Your task to perform on an android device: add a label to a message in the gmail app Image 0: 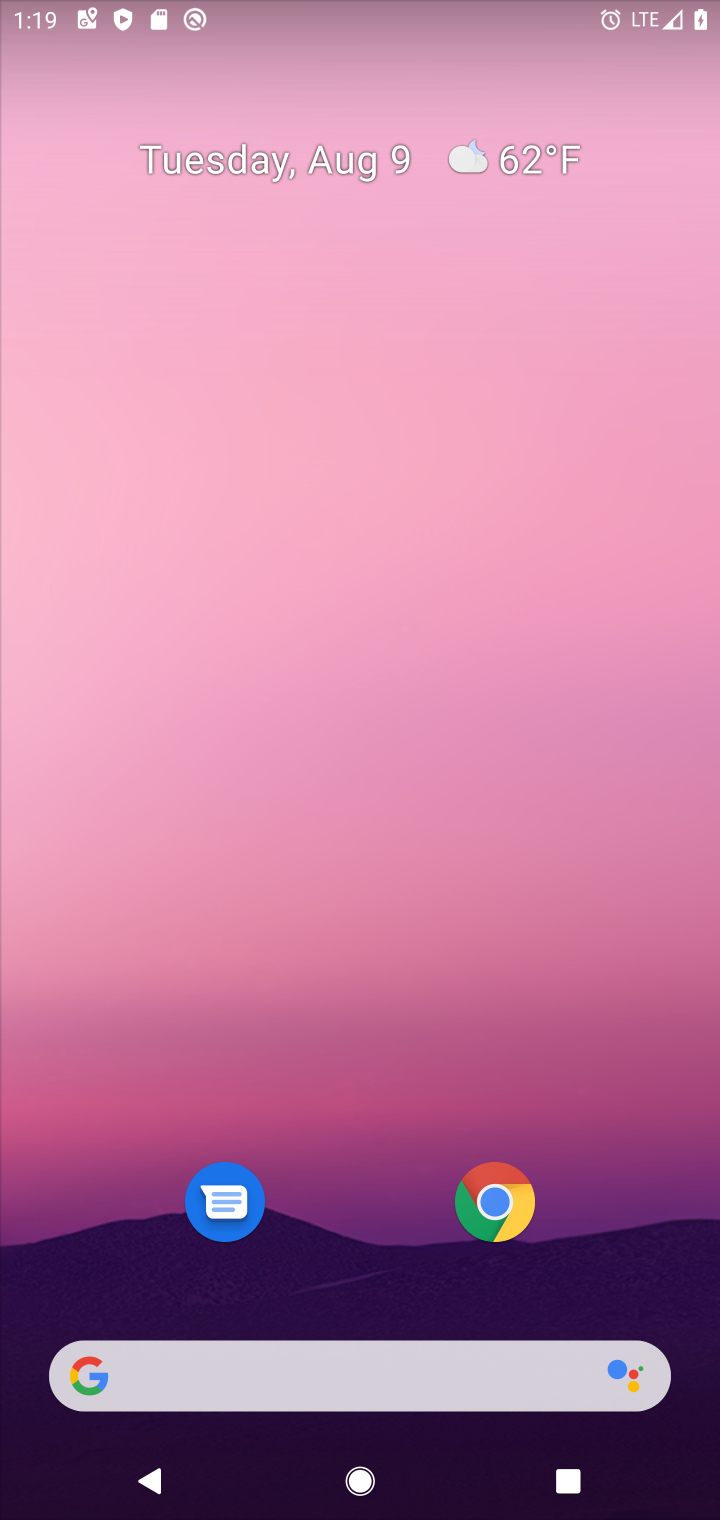
Step 0: drag from (364, 1078) to (308, 139)
Your task to perform on an android device: add a label to a message in the gmail app Image 1: 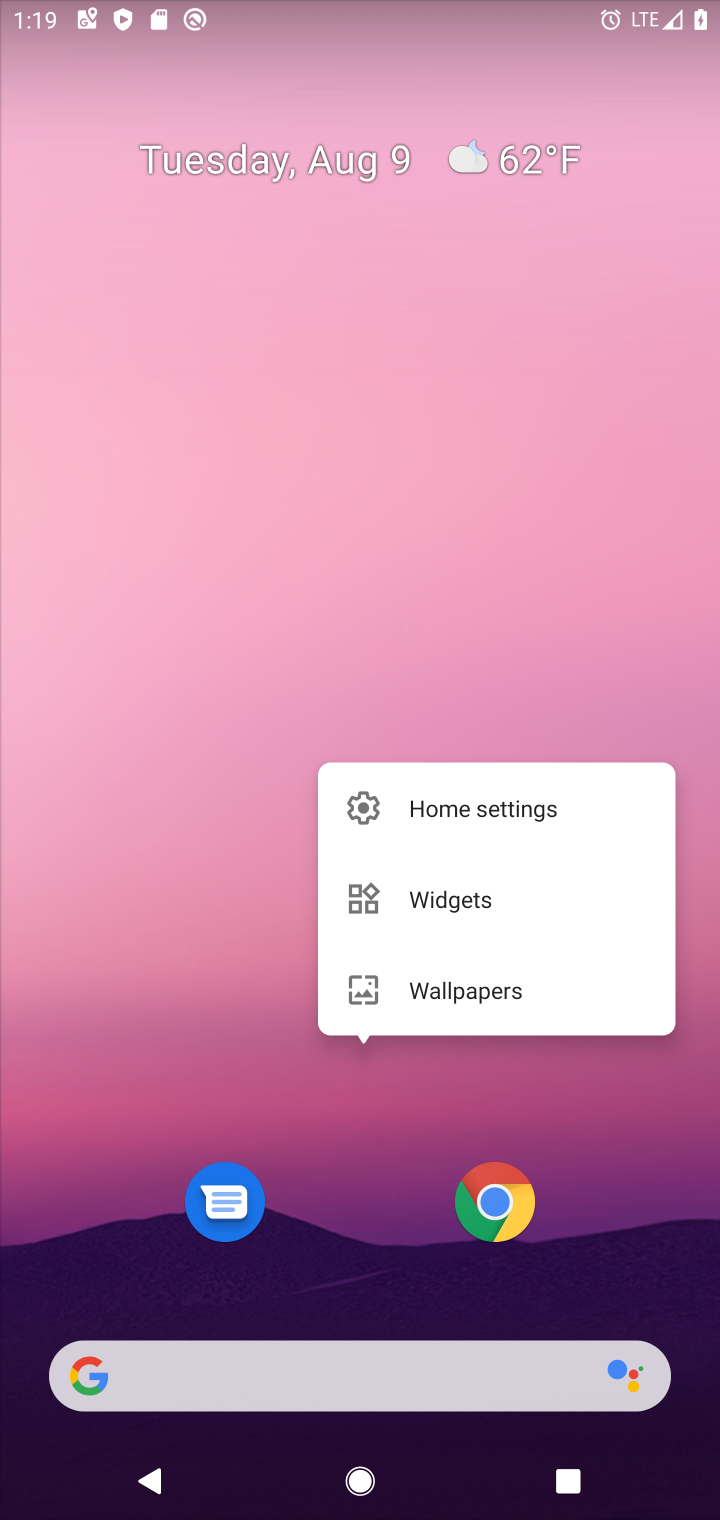
Step 1: click (394, 1267)
Your task to perform on an android device: add a label to a message in the gmail app Image 2: 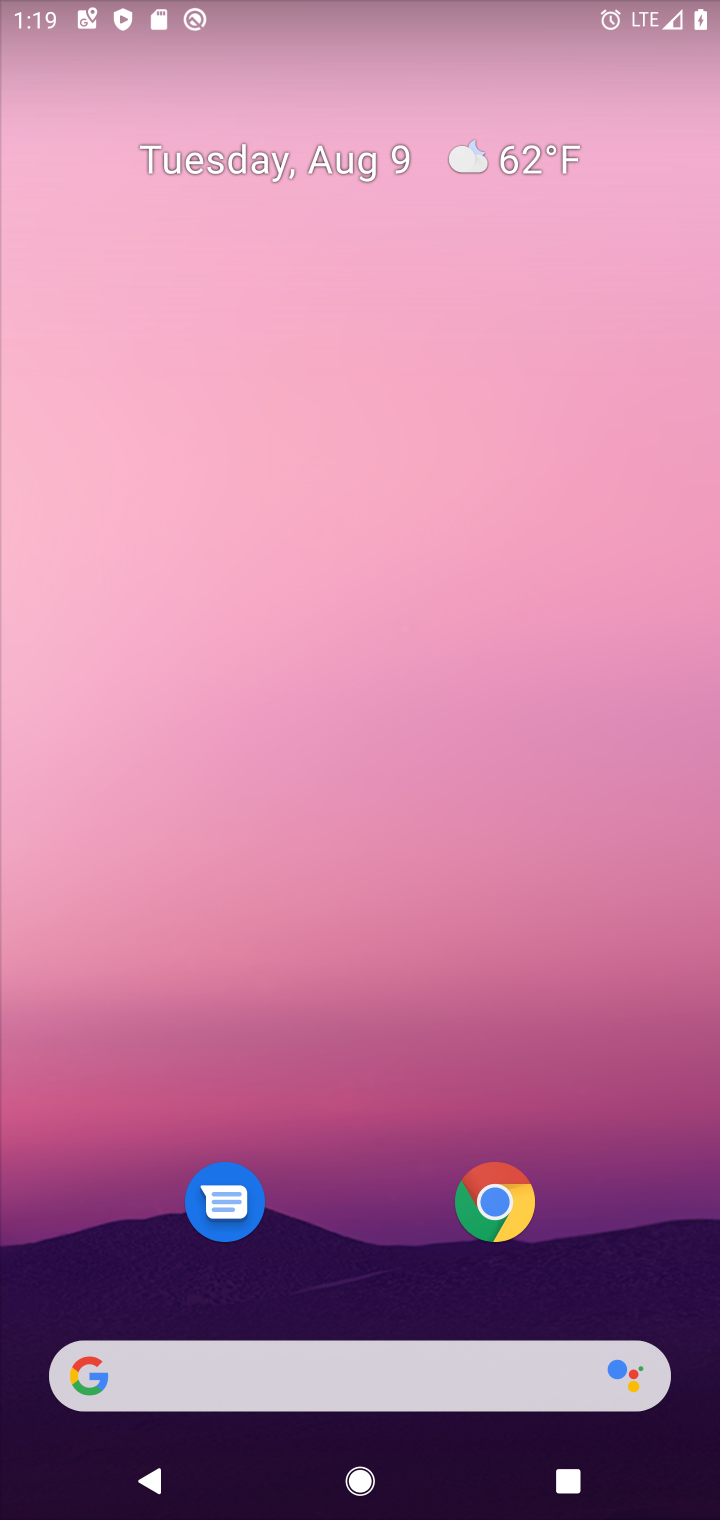
Step 2: drag from (394, 1118) to (352, 275)
Your task to perform on an android device: add a label to a message in the gmail app Image 3: 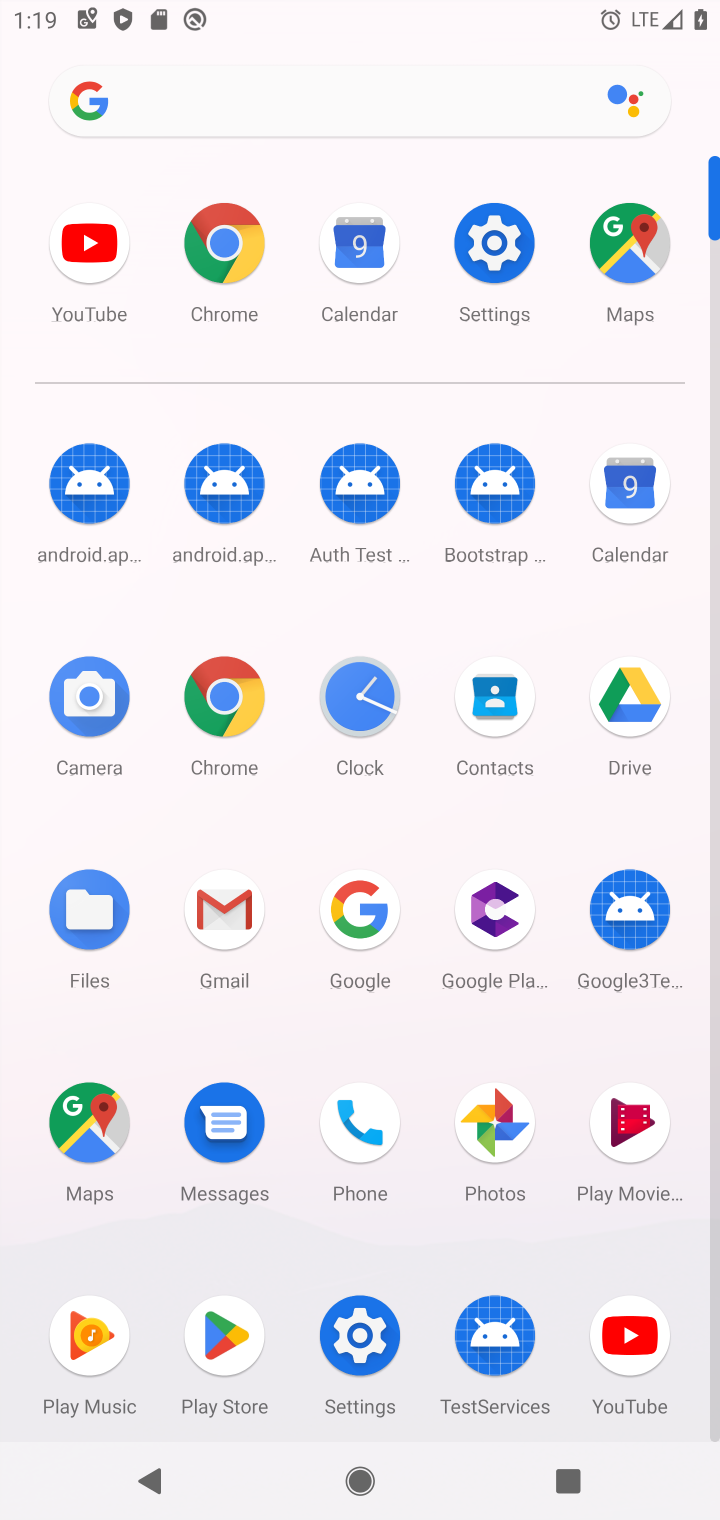
Step 3: click (224, 907)
Your task to perform on an android device: add a label to a message in the gmail app Image 4: 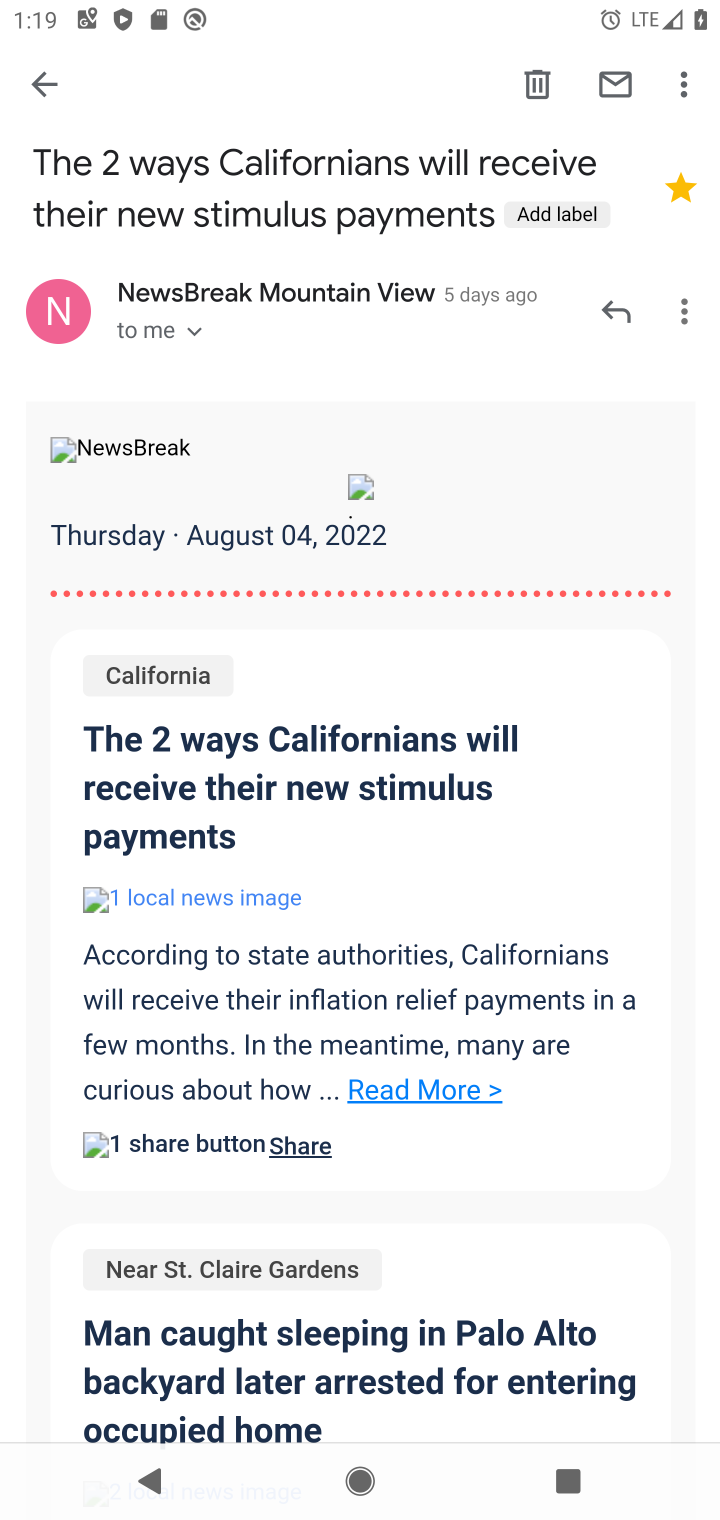
Step 4: click (47, 86)
Your task to perform on an android device: add a label to a message in the gmail app Image 5: 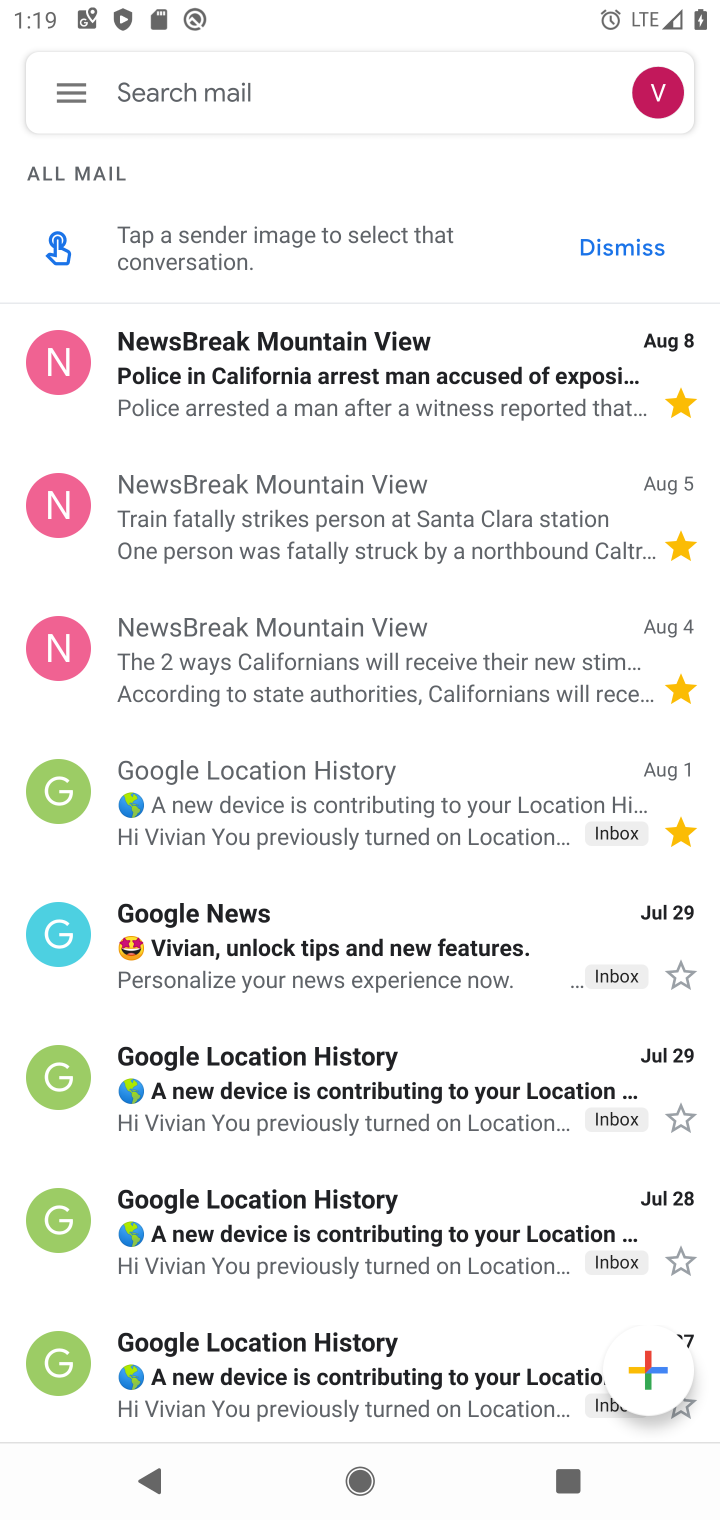
Step 5: click (307, 497)
Your task to perform on an android device: add a label to a message in the gmail app Image 6: 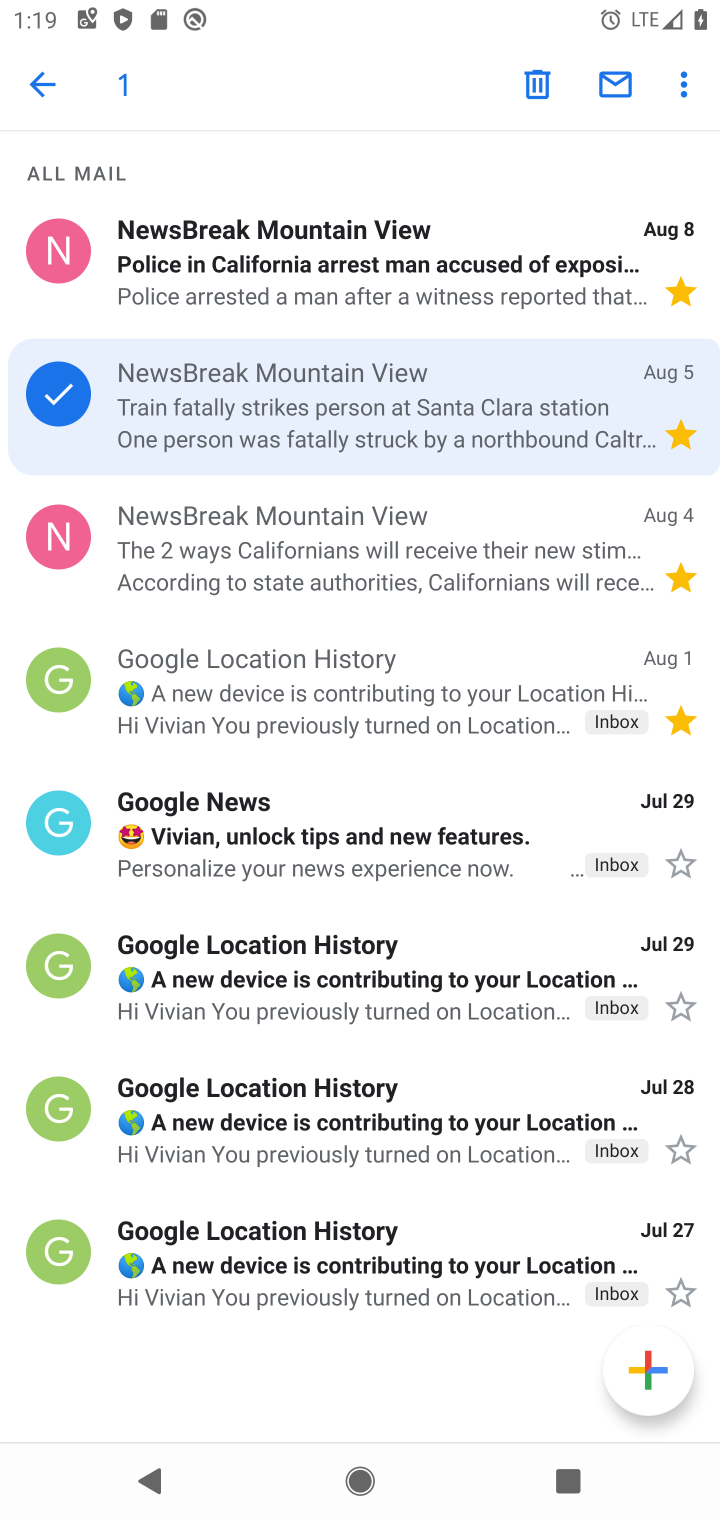
Step 6: click (26, 75)
Your task to perform on an android device: add a label to a message in the gmail app Image 7: 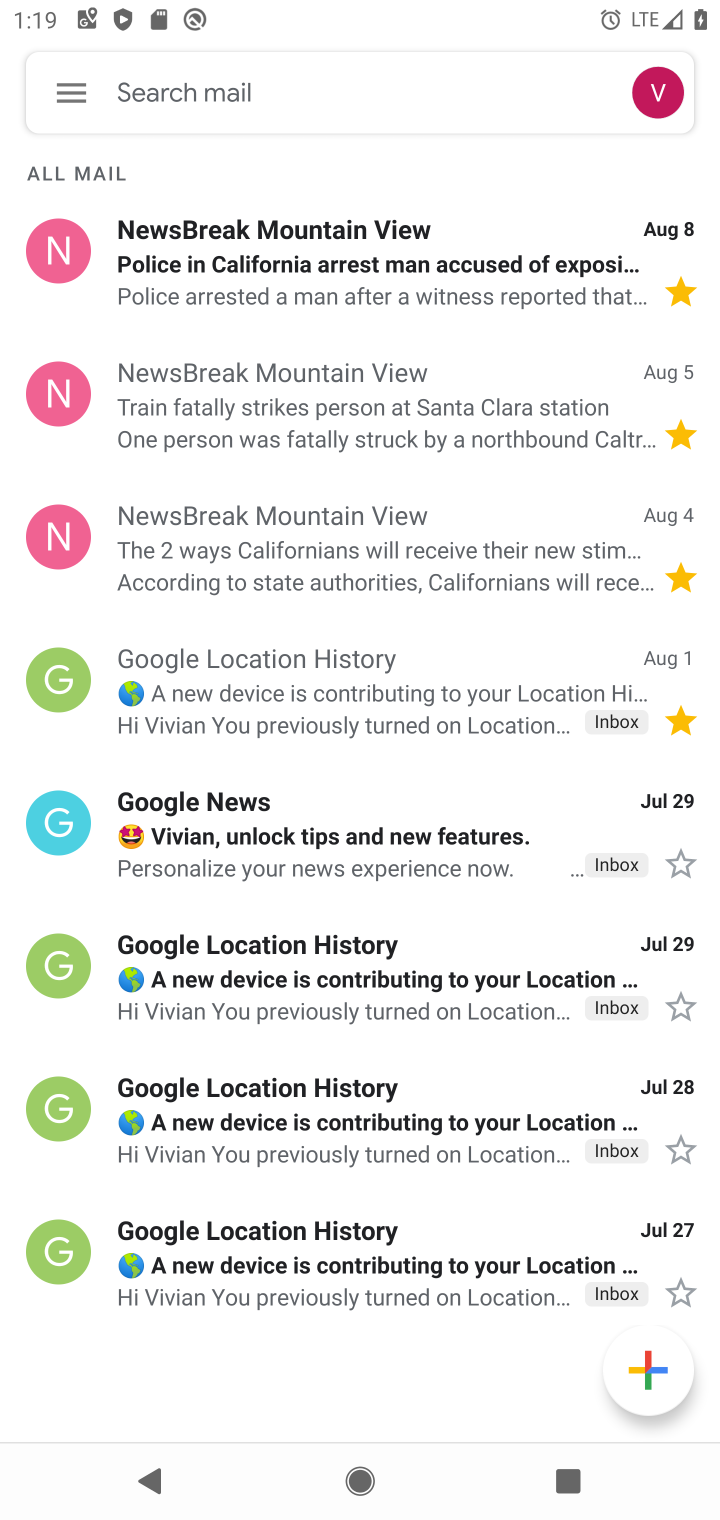
Step 7: click (391, 413)
Your task to perform on an android device: add a label to a message in the gmail app Image 8: 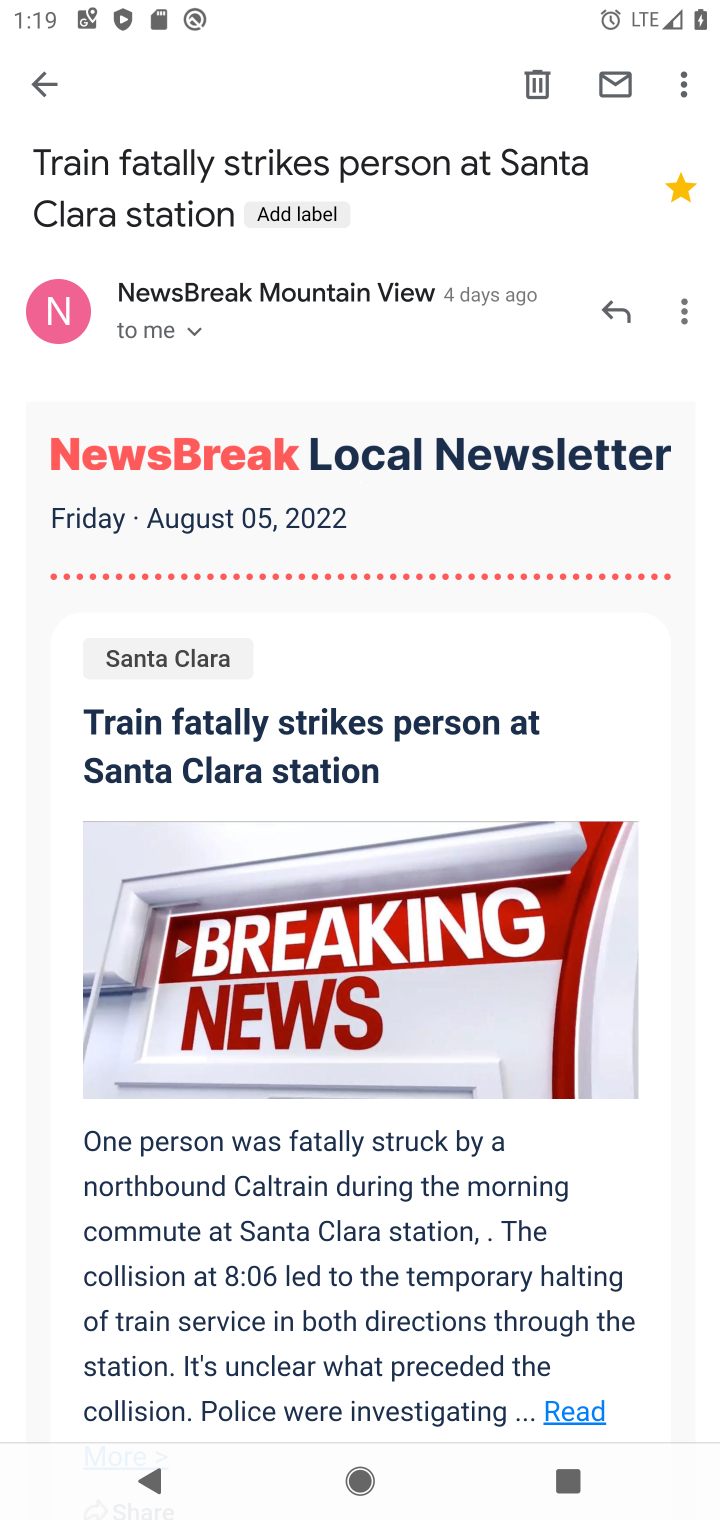
Step 8: click (684, 84)
Your task to perform on an android device: add a label to a message in the gmail app Image 9: 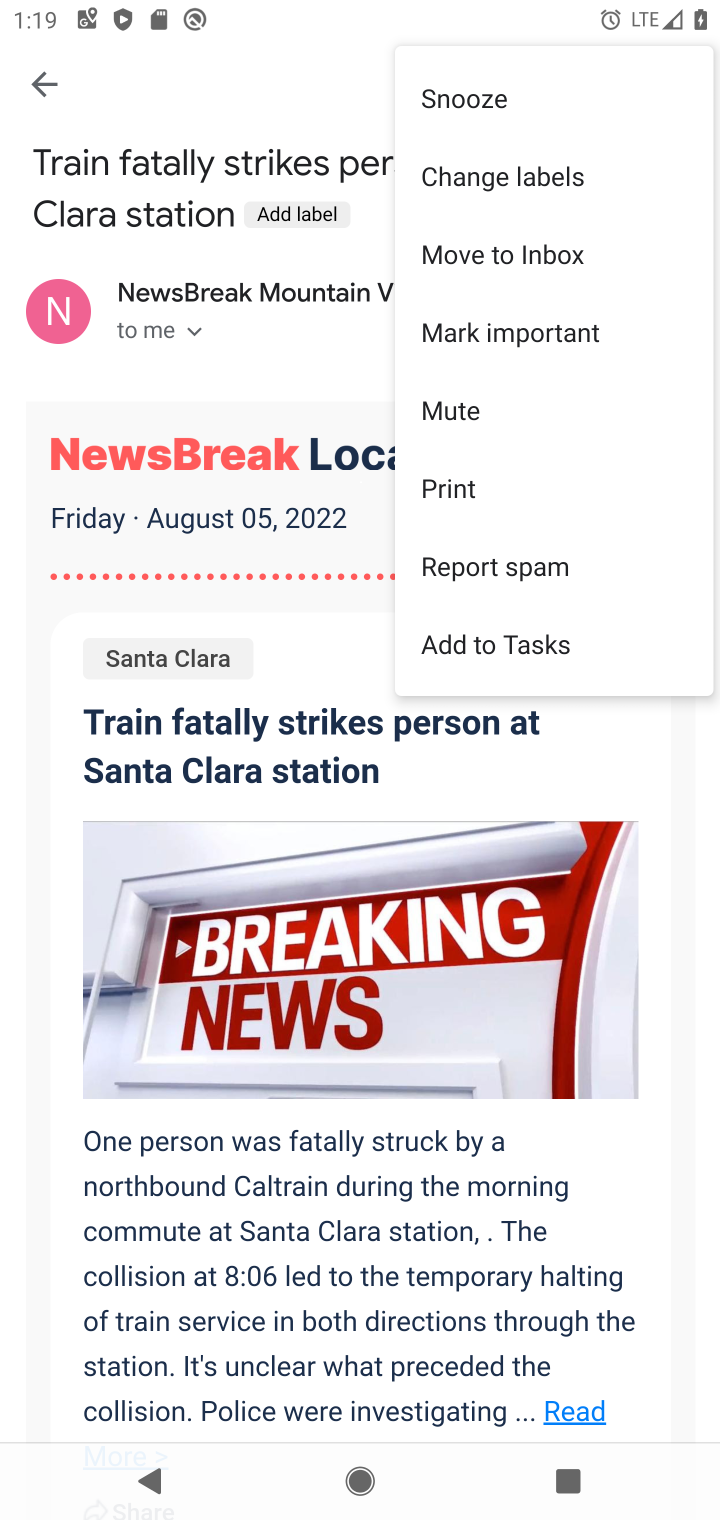
Step 9: click (523, 253)
Your task to perform on an android device: add a label to a message in the gmail app Image 10: 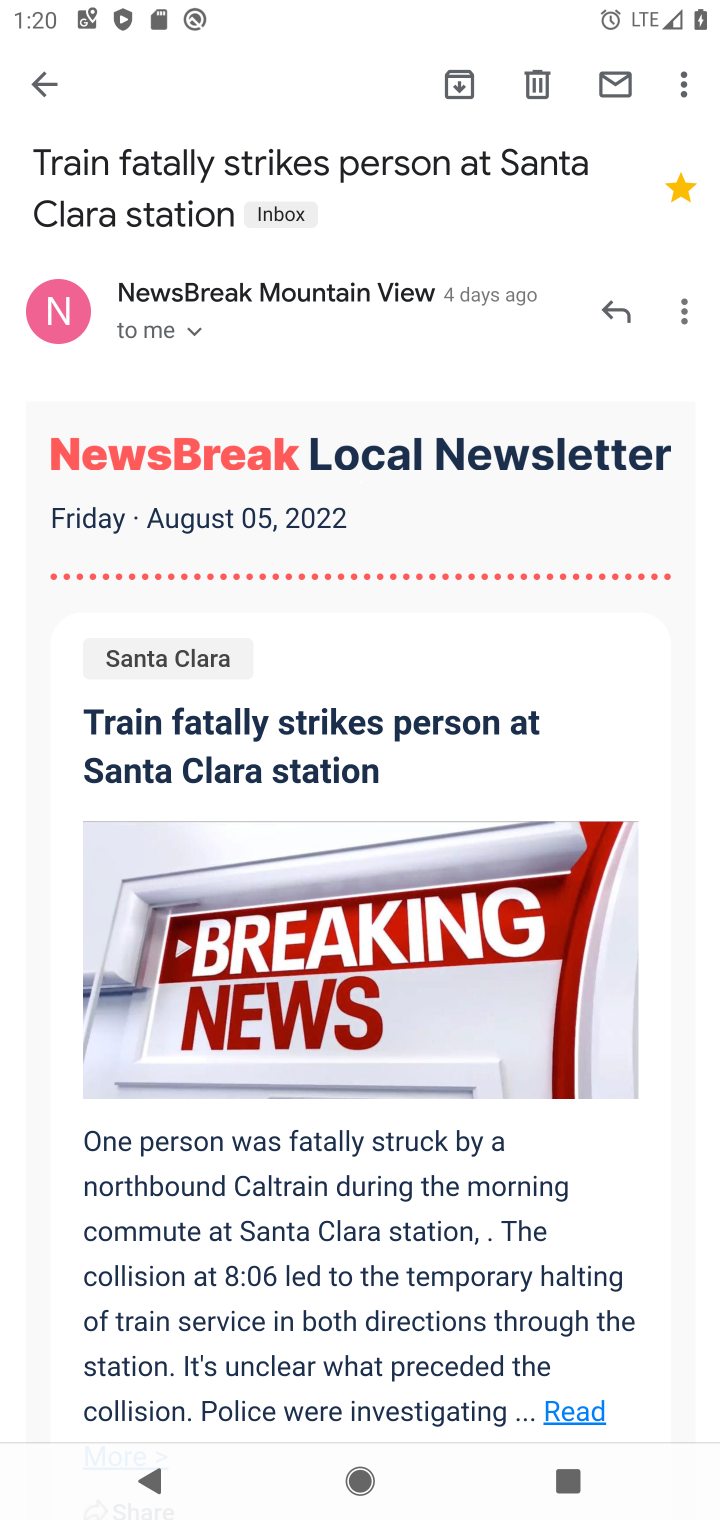
Step 10: task complete